Your task to perform on an android device: turn on priority inbox in the gmail app Image 0: 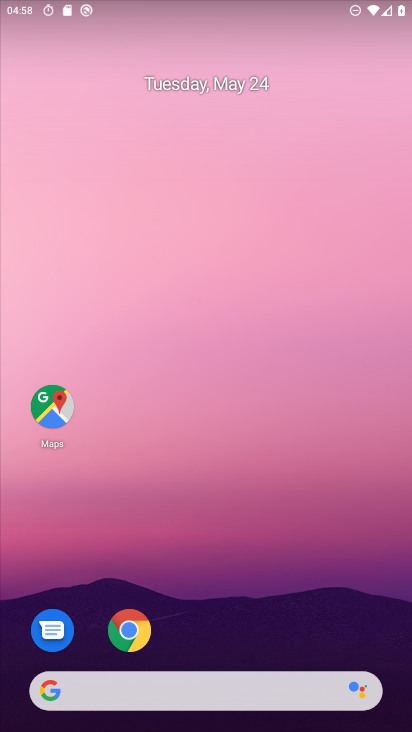
Step 0: click (339, 432)
Your task to perform on an android device: turn on priority inbox in the gmail app Image 1: 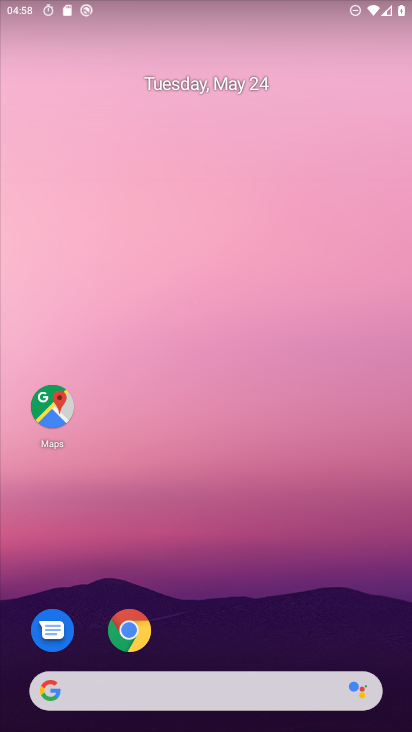
Step 1: drag from (214, 627) to (241, 12)
Your task to perform on an android device: turn on priority inbox in the gmail app Image 2: 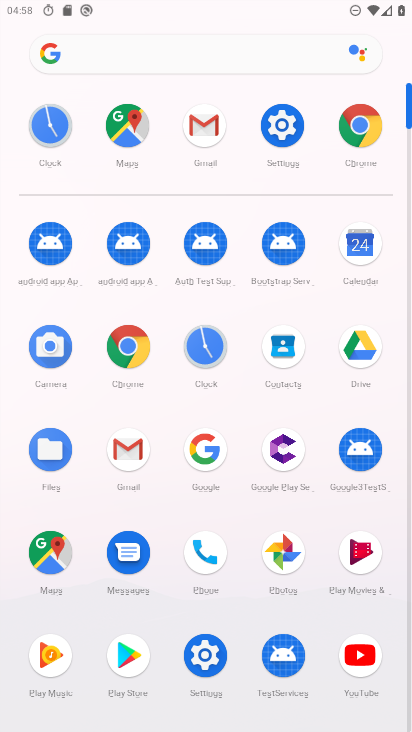
Step 2: click (185, 114)
Your task to perform on an android device: turn on priority inbox in the gmail app Image 3: 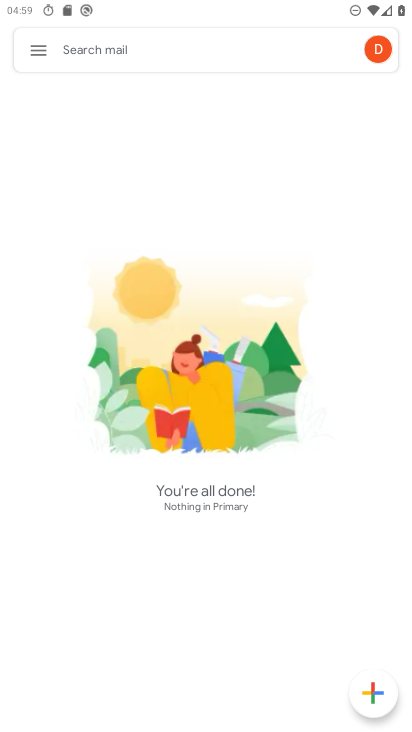
Step 3: click (35, 53)
Your task to perform on an android device: turn on priority inbox in the gmail app Image 4: 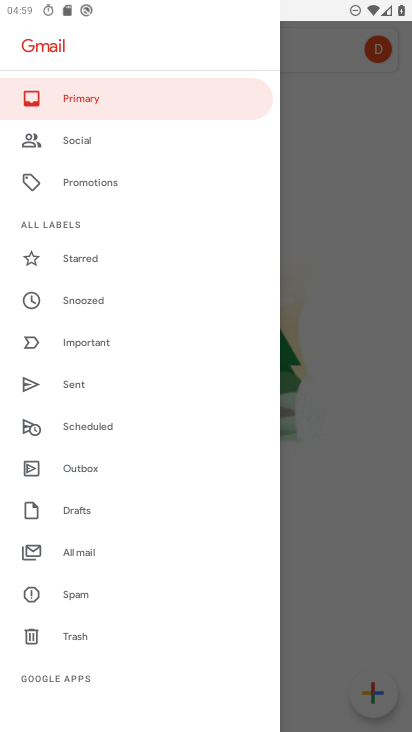
Step 4: drag from (106, 660) to (107, 90)
Your task to perform on an android device: turn on priority inbox in the gmail app Image 5: 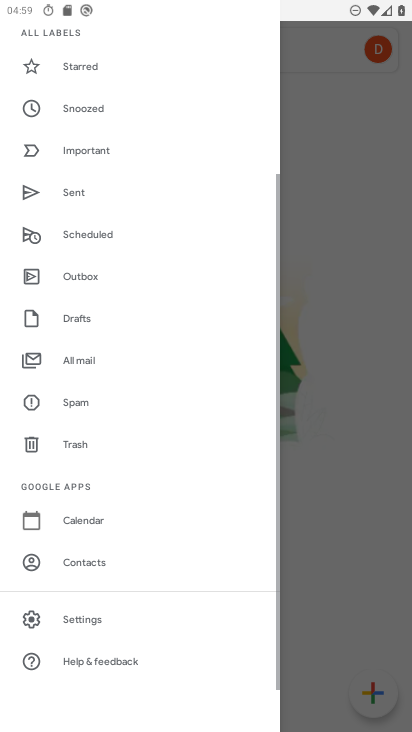
Step 5: click (113, 609)
Your task to perform on an android device: turn on priority inbox in the gmail app Image 6: 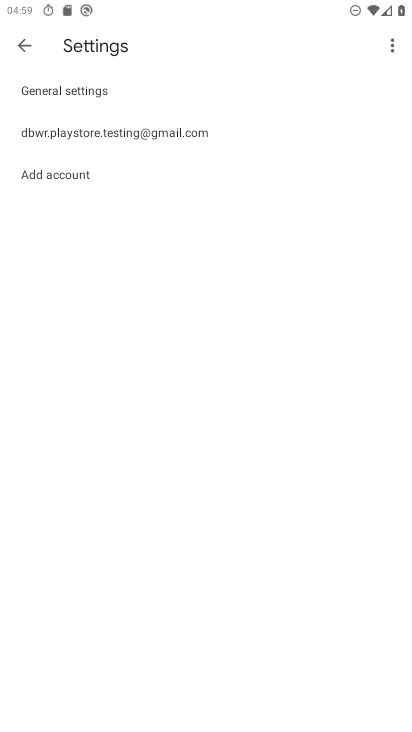
Step 6: click (230, 132)
Your task to perform on an android device: turn on priority inbox in the gmail app Image 7: 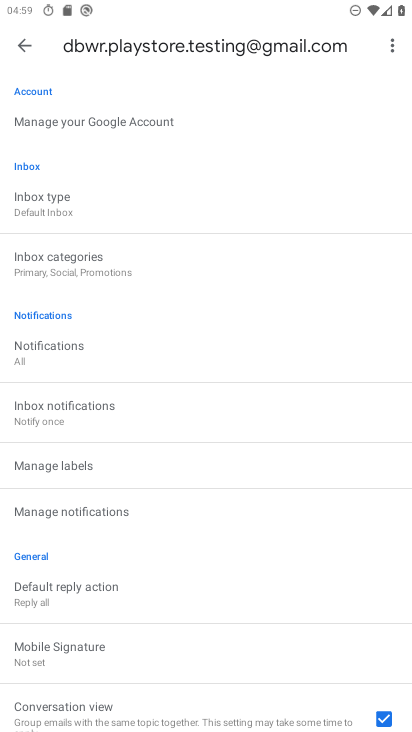
Step 7: click (106, 209)
Your task to perform on an android device: turn on priority inbox in the gmail app Image 8: 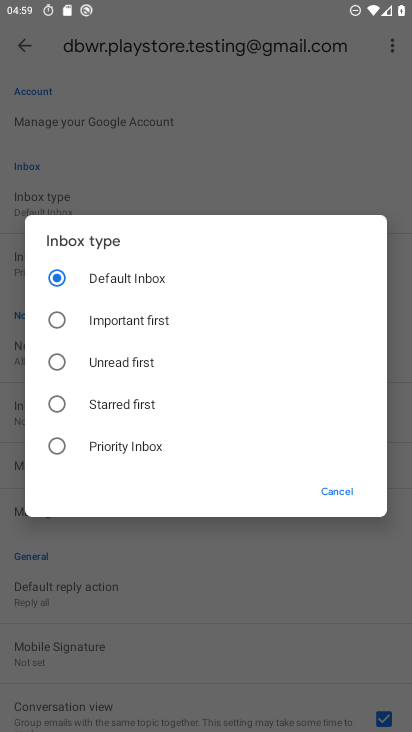
Step 8: click (54, 446)
Your task to perform on an android device: turn on priority inbox in the gmail app Image 9: 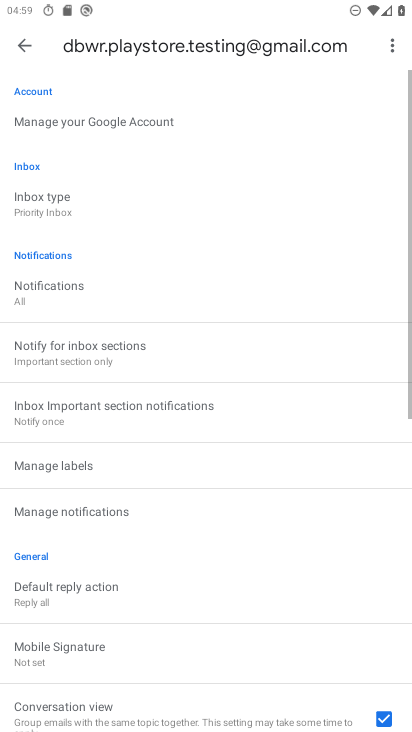
Step 9: task complete